Your task to perform on an android device: snooze an email in the gmail app Image 0: 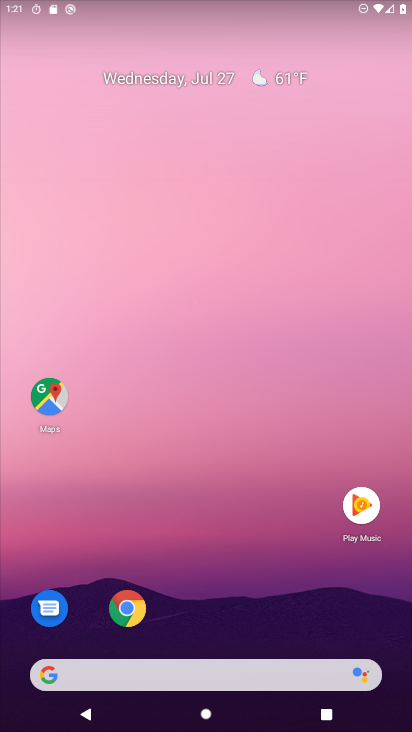
Step 0: press home button
Your task to perform on an android device: snooze an email in the gmail app Image 1: 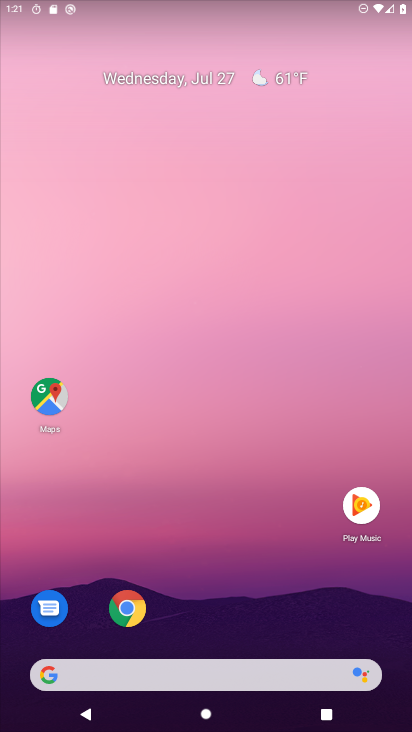
Step 1: drag from (289, 608) to (308, 253)
Your task to perform on an android device: snooze an email in the gmail app Image 2: 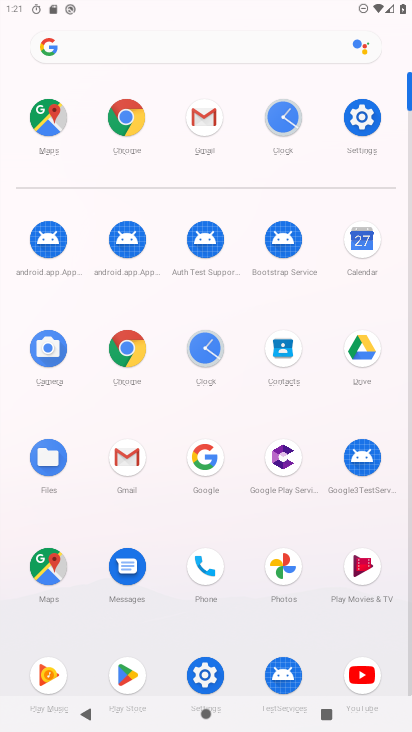
Step 2: click (206, 127)
Your task to perform on an android device: snooze an email in the gmail app Image 3: 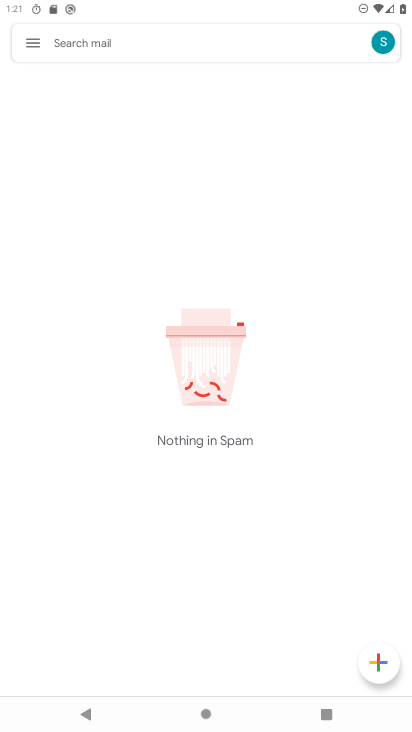
Step 3: click (30, 46)
Your task to perform on an android device: snooze an email in the gmail app Image 4: 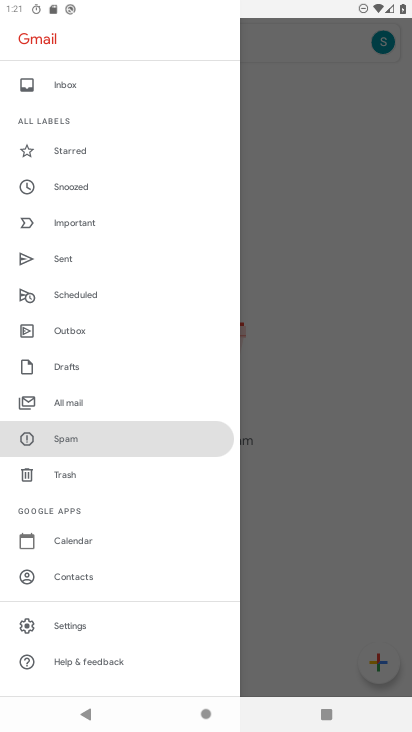
Step 4: click (81, 174)
Your task to perform on an android device: snooze an email in the gmail app Image 5: 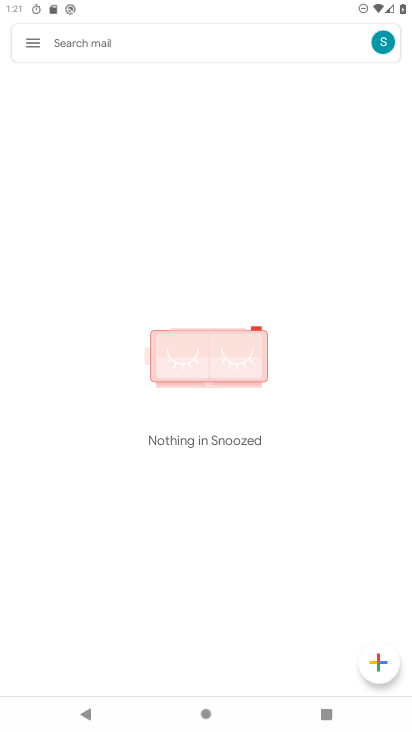
Step 5: task complete